Your task to perform on an android device: What's the weather? Image 0: 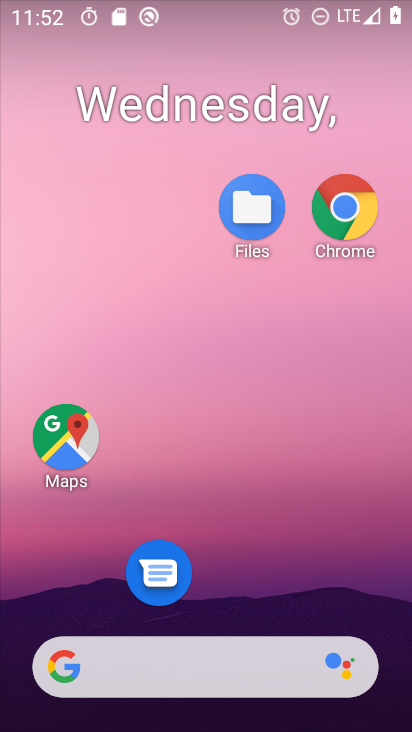
Step 0: drag from (253, 679) to (252, 210)
Your task to perform on an android device: What's the weather? Image 1: 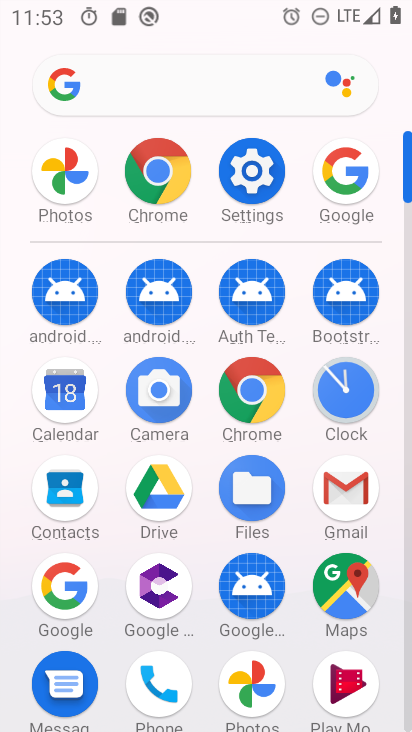
Step 1: click (79, 584)
Your task to perform on an android device: What's the weather? Image 2: 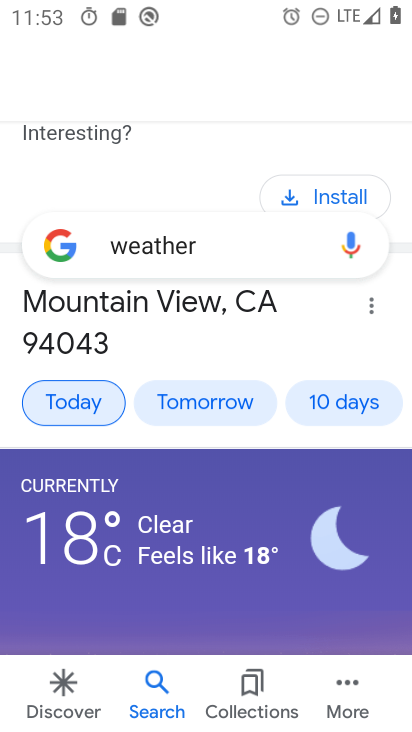
Step 2: task complete